Your task to perform on an android device: Go to Reddit.com Image 0: 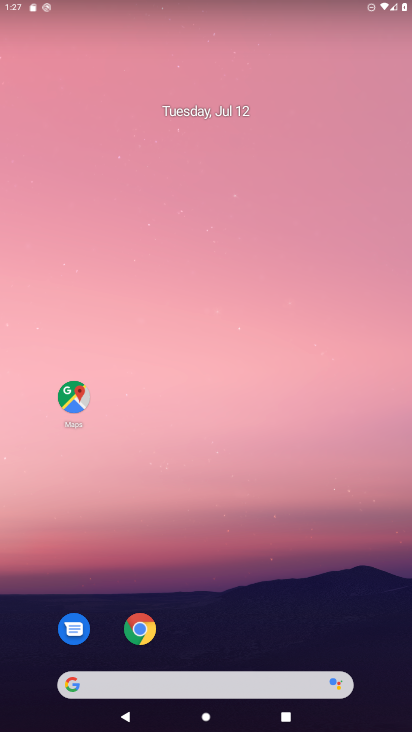
Step 0: press home button
Your task to perform on an android device: Go to Reddit.com Image 1: 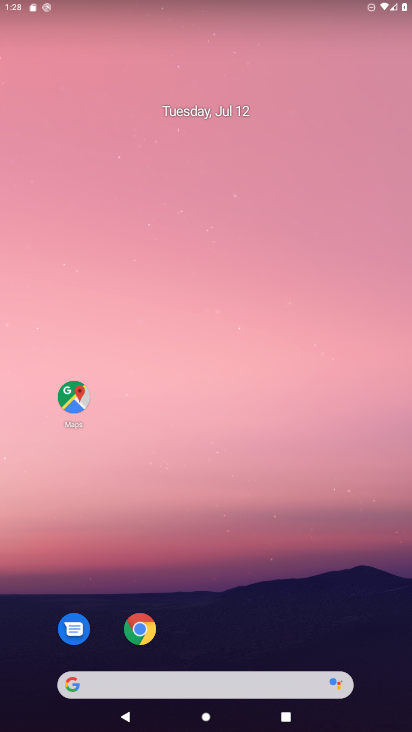
Step 1: click (139, 622)
Your task to perform on an android device: Go to Reddit.com Image 2: 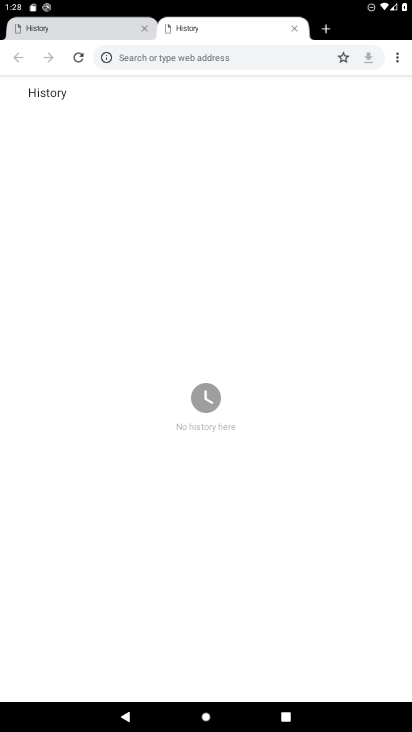
Step 2: click (293, 23)
Your task to perform on an android device: Go to Reddit.com Image 3: 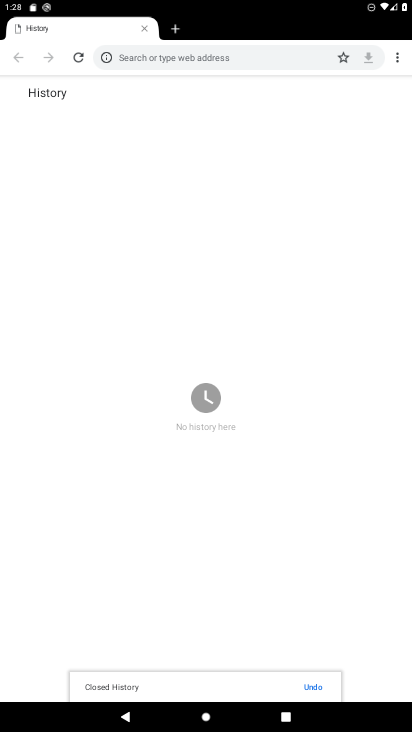
Step 3: click (169, 25)
Your task to perform on an android device: Go to Reddit.com Image 4: 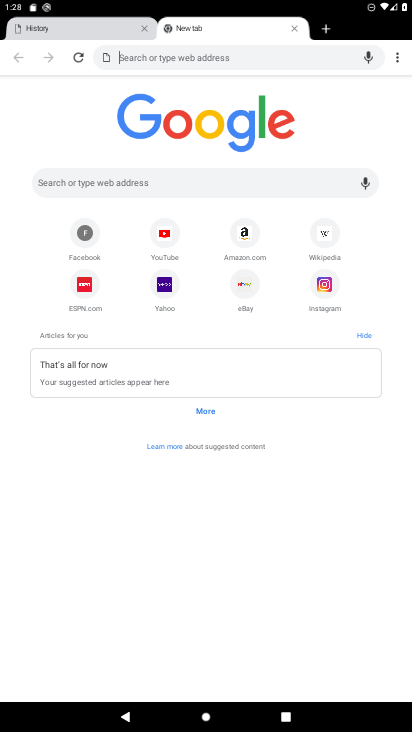
Step 4: click (144, 26)
Your task to perform on an android device: Go to Reddit.com Image 5: 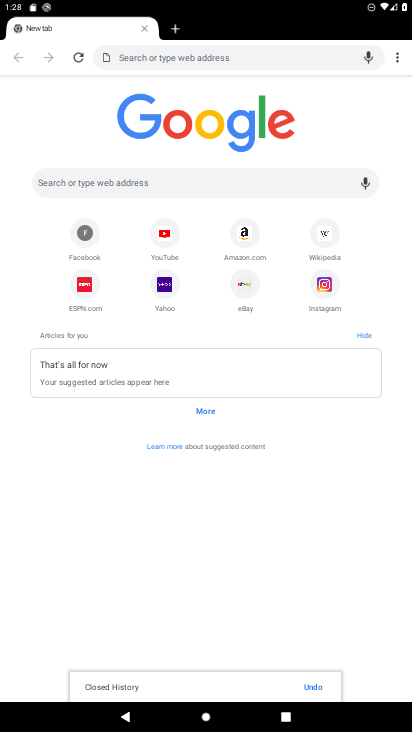
Step 5: click (110, 176)
Your task to perform on an android device: Go to Reddit.com Image 6: 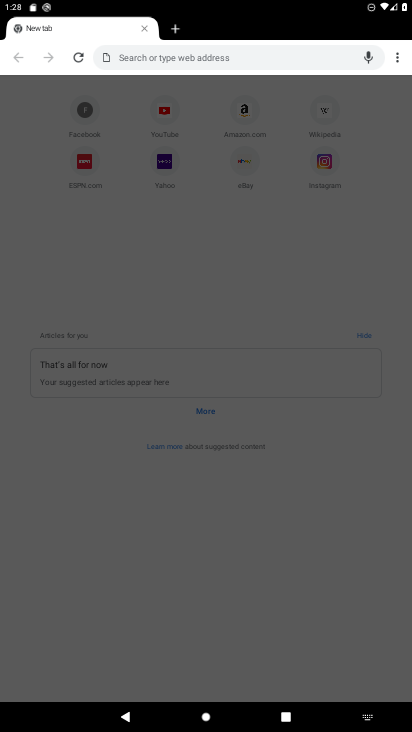
Step 6: type "reddit.com"
Your task to perform on an android device: Go to Reddit.com Image 7: 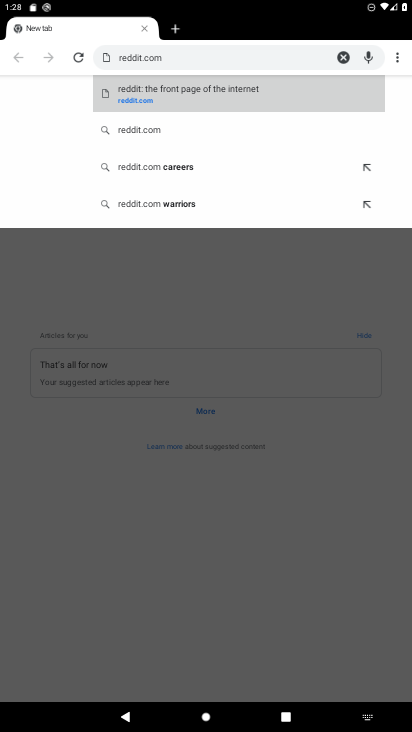
Step 7: click (165, 98)
Your task to perform on an android device: Go to Reddit.com Image 8: 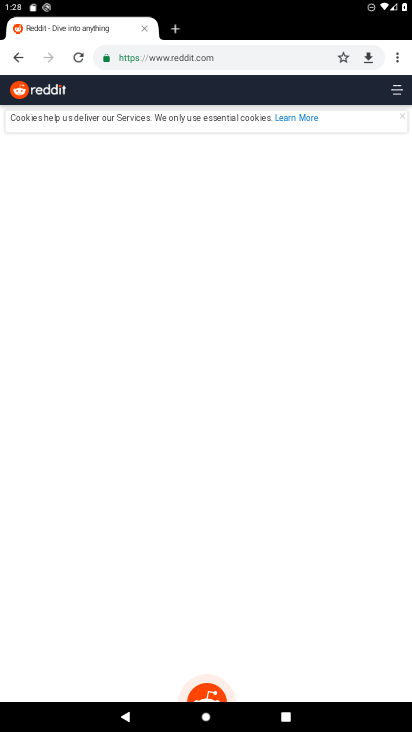
Step 8: task complete